Your task to perform on an android device: allow cookies in the chrome app Image 0: 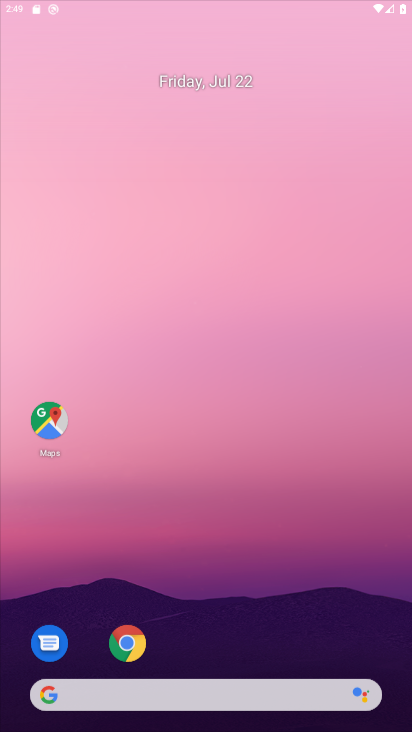
Step 0: drag from (220, 630) to (260, 228)
Your task to perform on an android device: allow cookies in the chrome app Image 1: 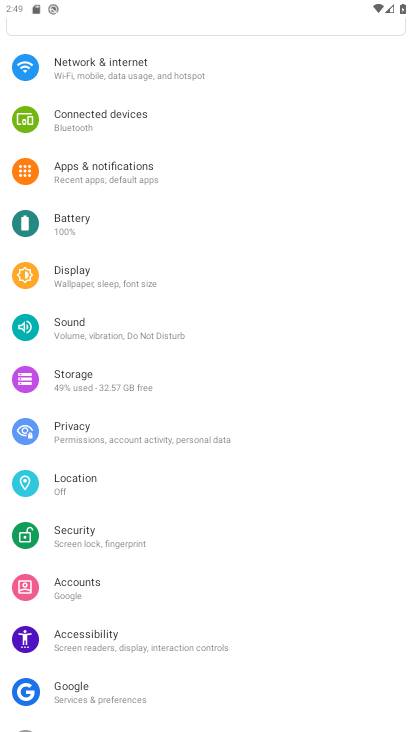
Step 1: press home button
Your task to perform on an android device: allow cookies in the chrome app Image 2: 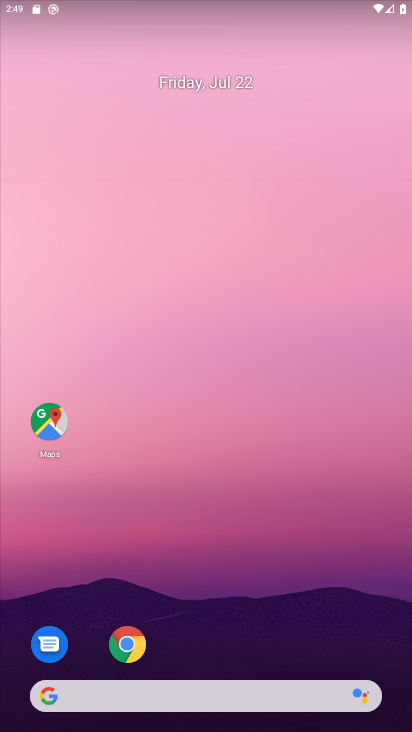
Step 2: click (124, 659)
Your task to perform on an android device: allow cookies in the chrome app Image 3: 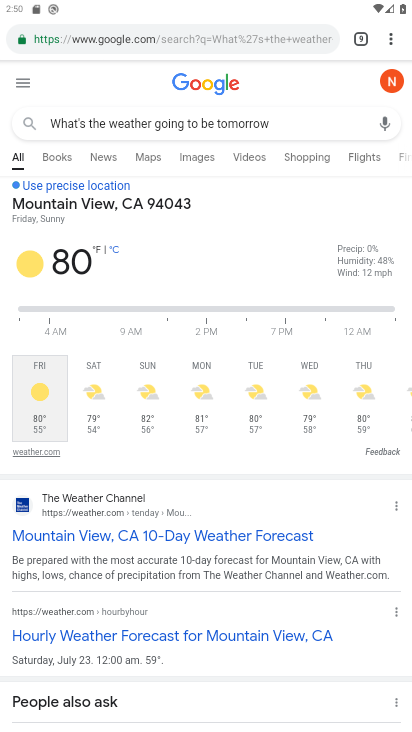
Step 3: click (395, 24)
Your task to perform on an android device: allow cookies in the chrome app Image 4: 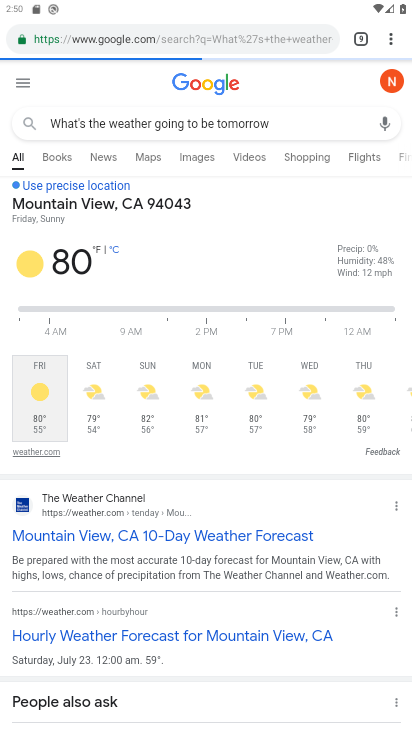
Step 4: click (391, 43)
Your task to perform on an android device: allow cookies in the chrome app Image 5: 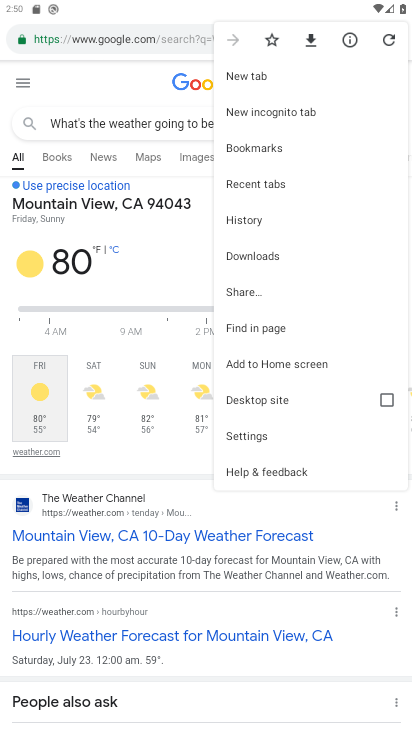
Step 5: click (281, 433)
Your task to perform on an android device: allow cookies in the chrome app Image 6: 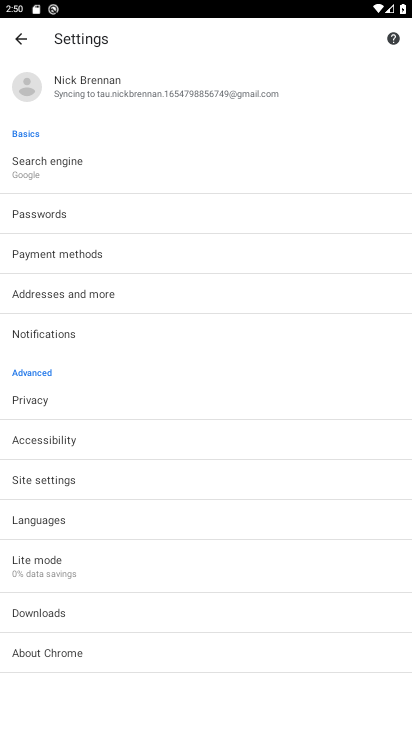
Step 6: click (68, 486)
Your task to perform on an android device: allow cookies in the chrome app Image 7: 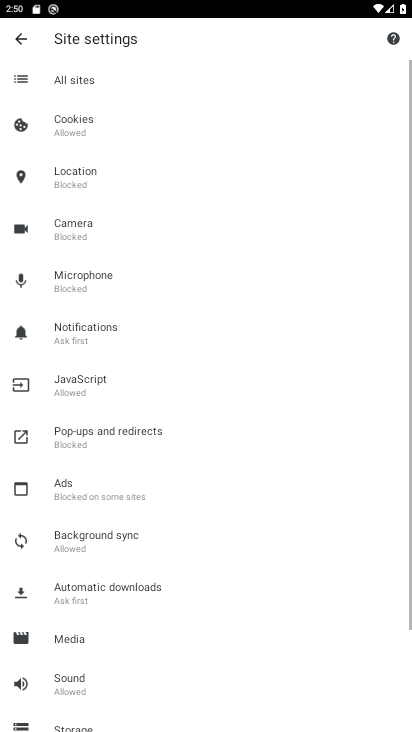
Step 7: click (91, 109)
Your task to perform on an android device: allow cookies in the chrome app Image 8: 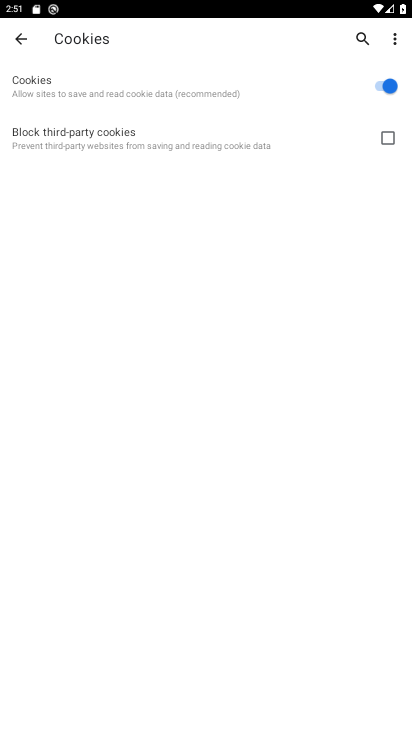
Step 8: task complete